Your task to perform on an android device: Go to display settings Image 0: 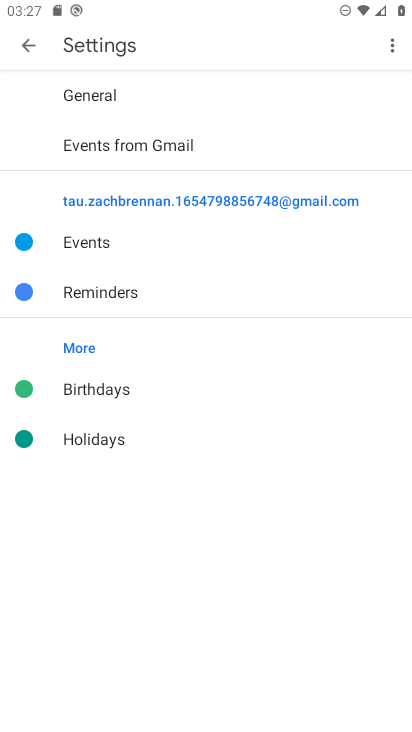
Step 0: press home button
Your task to perform on an android device: Go to display settings Image 1: 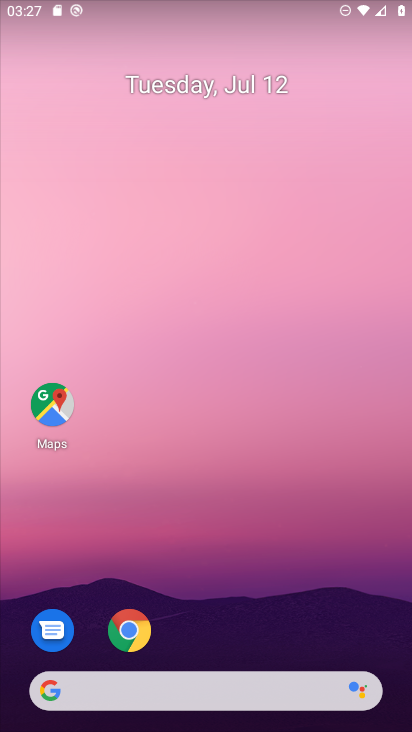
Step 1: drag from (337, 607) to (326, 47)
Your task to perform on an android device: Go to display settings Image 2: 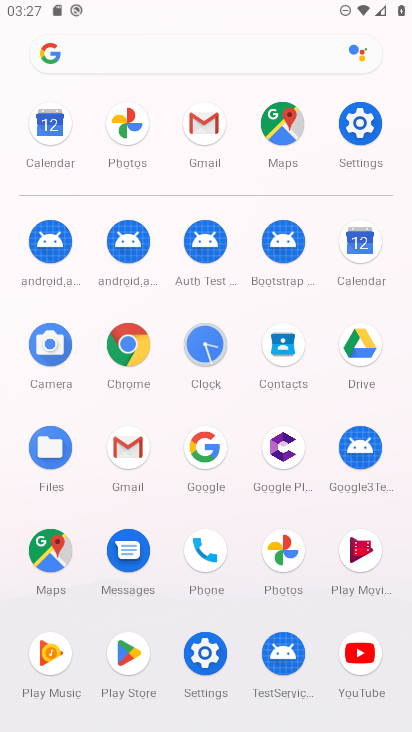
Step 2: click (207, 652)
Your task to perform on an android device: Go to display settings Image 3: 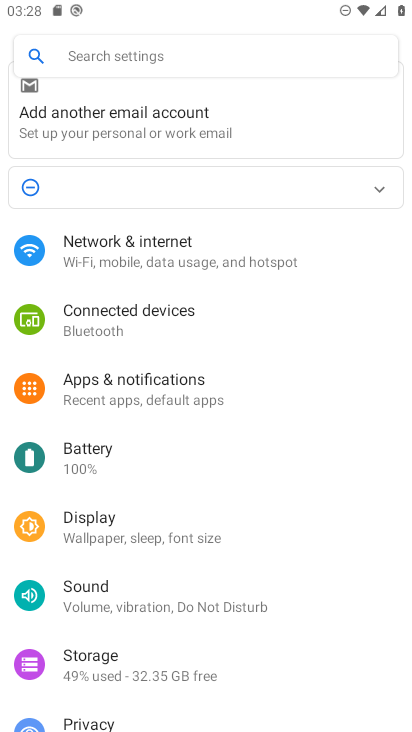
Step 3: click (85, 528)
Your task to perform on an android device: Go to display settings Image 4: 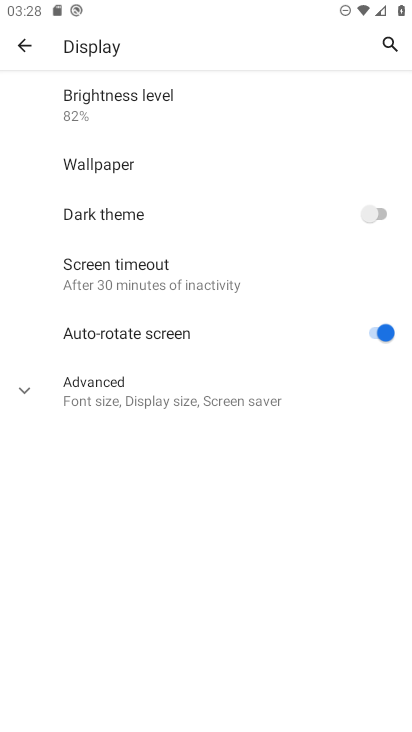
Step 4: click (23, 393)
Your task to perform on an android device: Go to display settings Image 5: 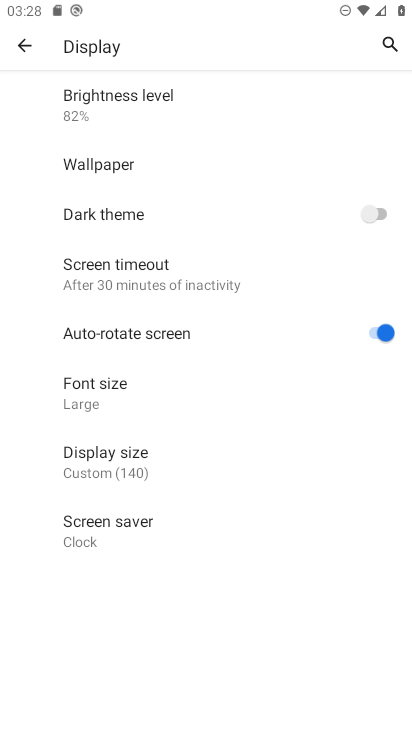
Step 5: task complete